Your task to perform on an android device: check google app version Image 0: 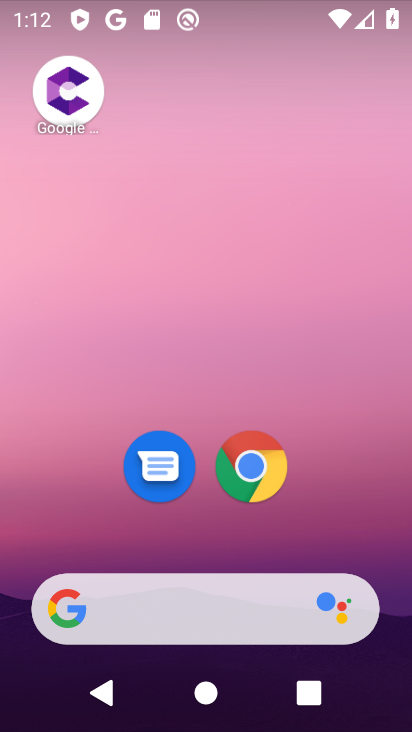
Step 0: drag from (96, 570) to (215, 112)
Your task to perform on an android device: check google app version Image 1: 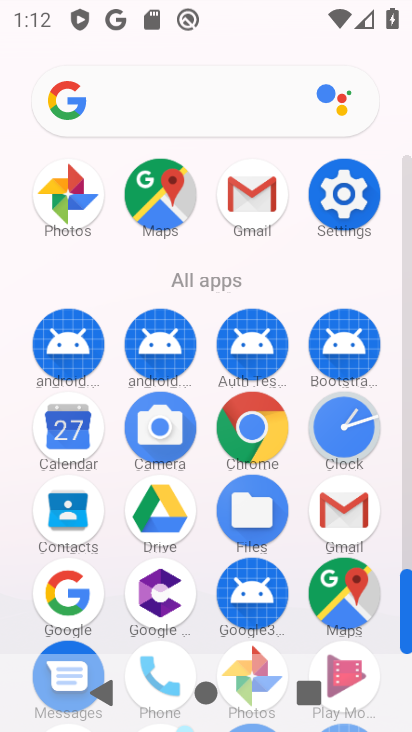
Step 1: drag from (162, 591) to (298, 235)
Your task to perform on an android device: check google app version Image 2: 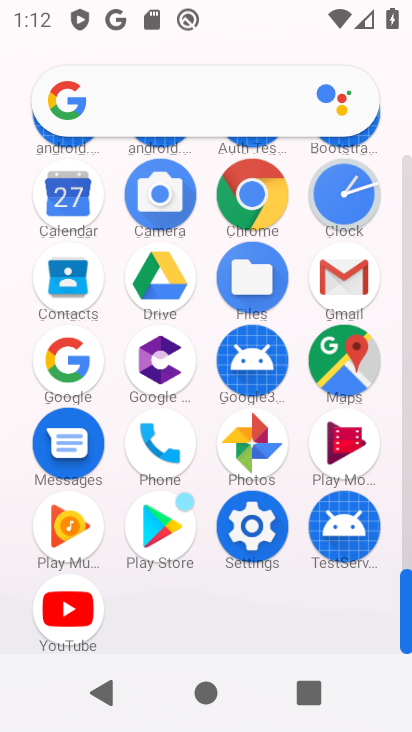
Step 2: click (265, 541)
Your task to perform on an android device: check google app version Image 3: 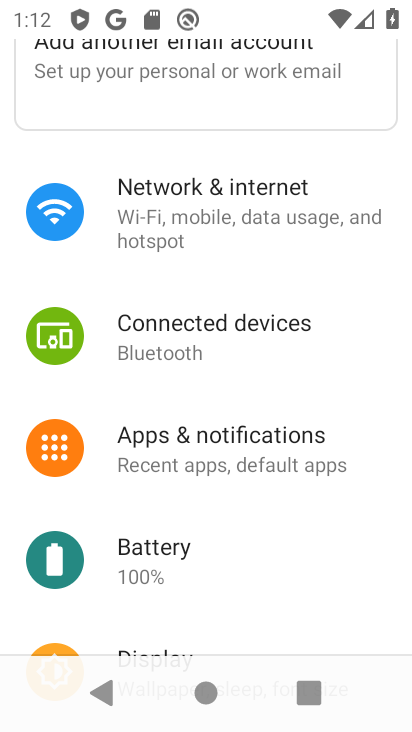
Step 3: click (223, 452)
Your task to perform on an android device: check google app version Image 4: 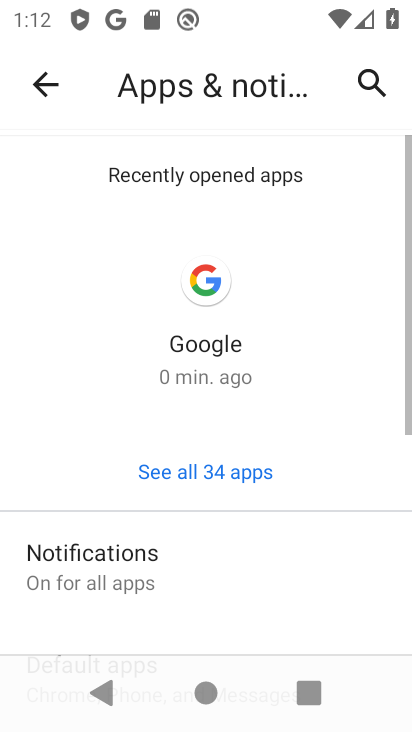
Step 4: click (261, 472)
Your task to perform on an android device: check google app version Image 5: 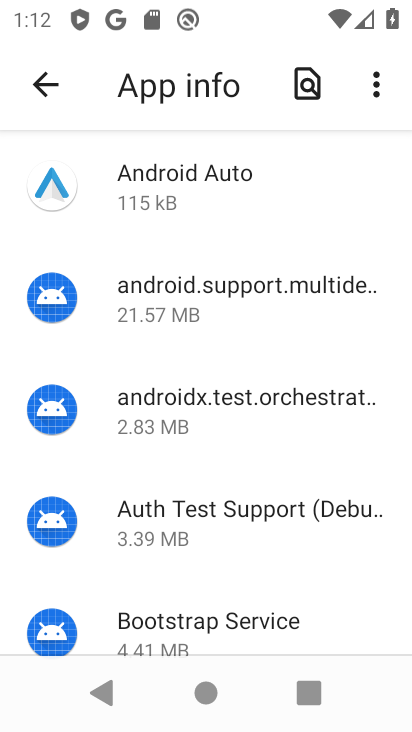
Step 5: drag from (166, 538) to (313, 83)
Your task to perform on an android device: check google app version Image 6: 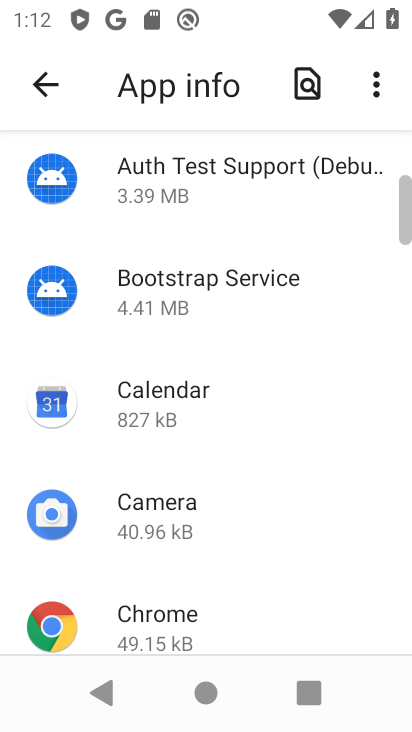
Step 6: drag from (244, 585) to (395, 146)
Your task to perform on an android device: check google app version Image 7: 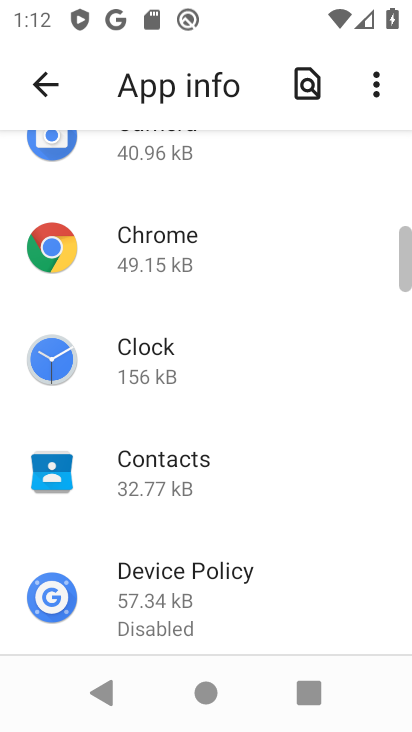
Step 7: drag from (214, 569) to (350, 184)
Your task to perform on an android device: check google app version Image 8: 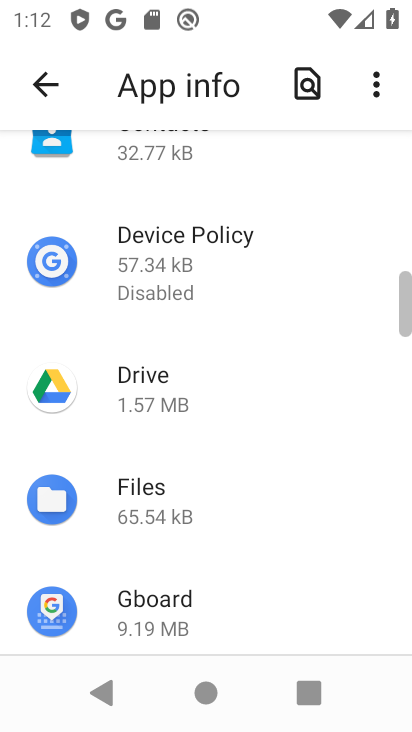
Step 8: drag from (272, 623) to (383, 186)
Your task to perform on an android device: check google app version Image 9: 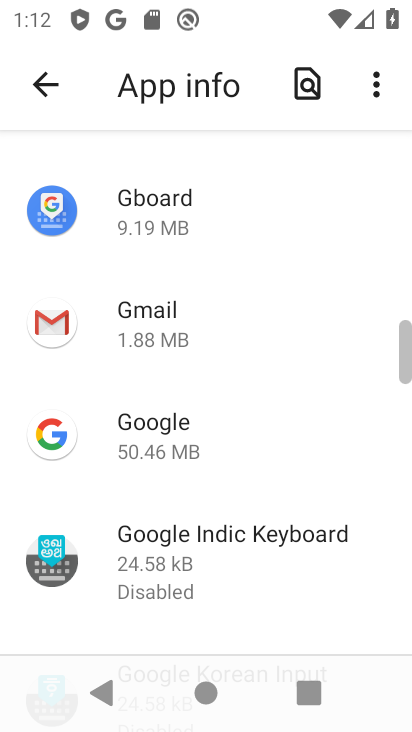
Step 9: drag from (222, 589) to (290, 355)
Your task to perform on an android device: check google app version Image 10: 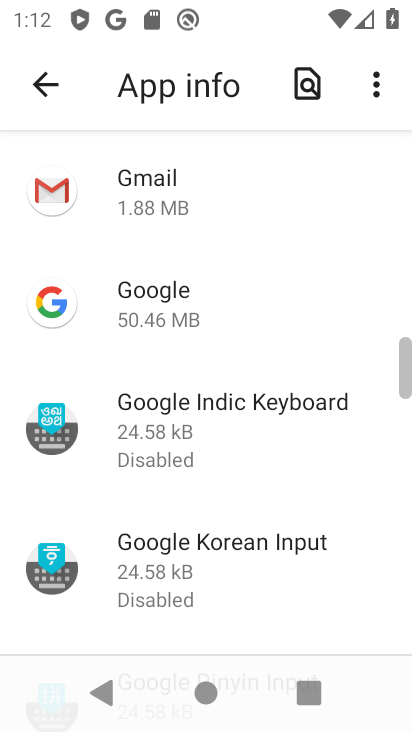
Step 10: click (237, 323)
Your task to perform on an android device: check google app version Image 11: 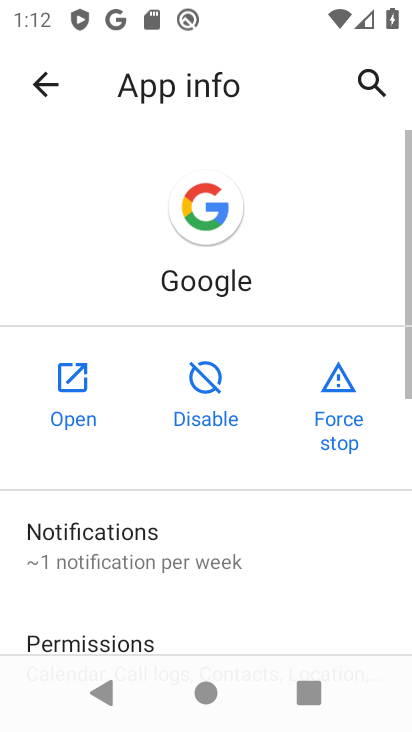
Step 11: drag from (174, 571) to (362, 96)
Your task to perform on an android device: check google app version Image 12: 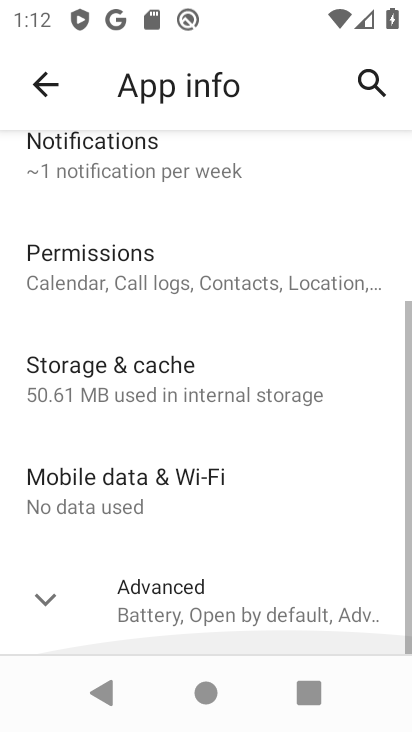
Step 12: drag from (223, 602) to (307, 352)
Your task to perform on an android device: check google app version Image 13: 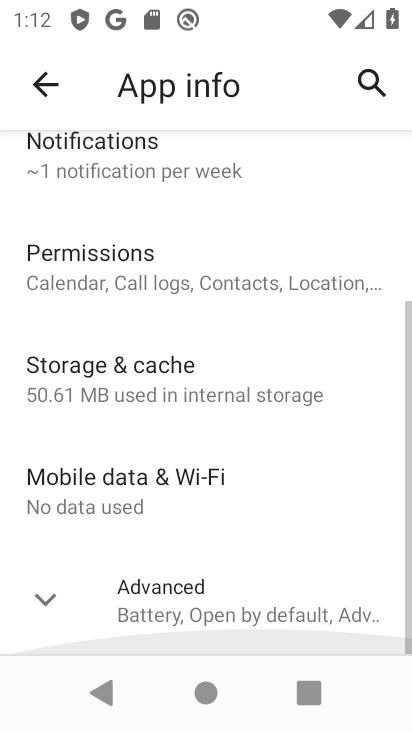
Step 13: click (266, 621)
Your task to perform on an android device: check google app version Image 14: 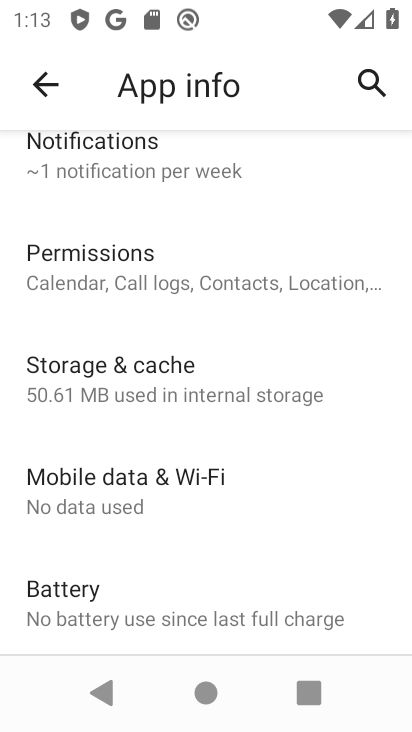
Step 14: task complete